Your task to perform on an android device: turn on the 12-hour format for clock Image 0: 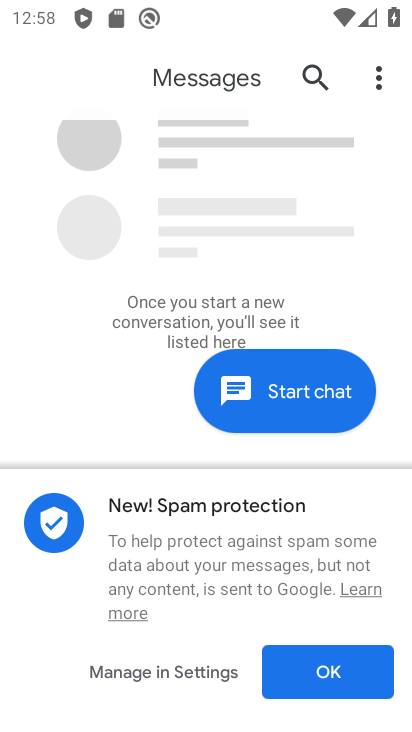
Step 0: press home button
Your task to perform on an android device: turn on the 12-hour format for clock Image 1: 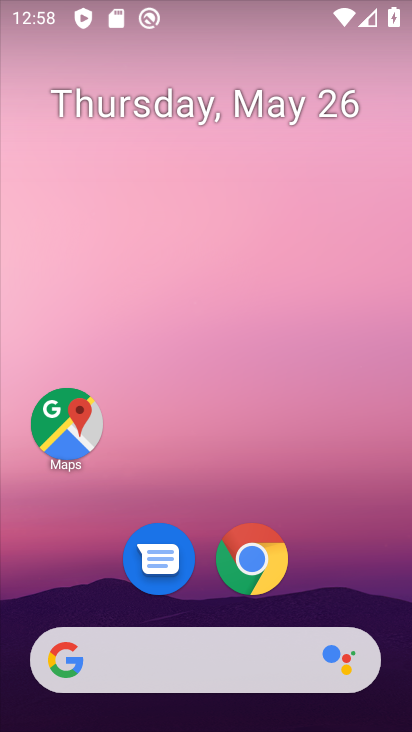
Step 1: drag from (326, 351) to (371, 174)
Your task to perform on an android device: turn on the 12-hour format for clock Image 2: 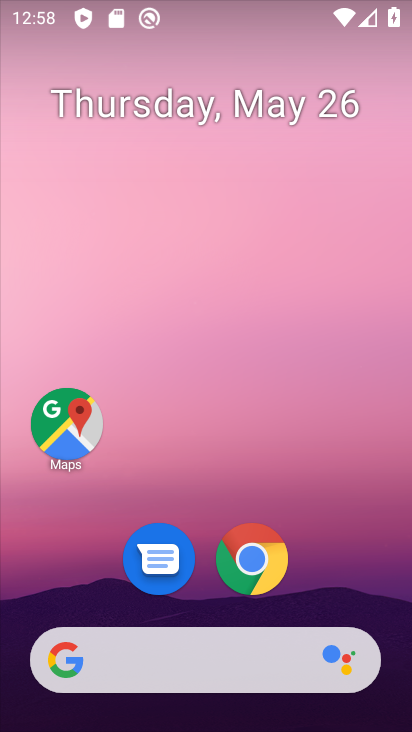
Step 2: drag from (175, 663) to (340, 220)
Your task to perform on an android device: turn on the 12-hour format for clock Image 3: 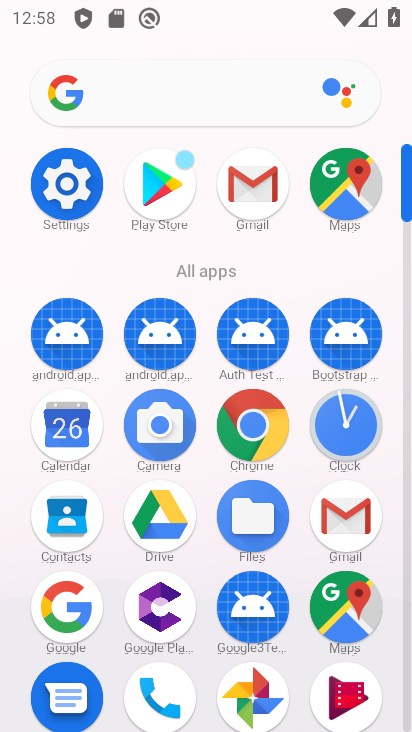
Step 3: click (340, 439)
Your task to perform on an android device: turn on the 12-hour format for clock Image 4: 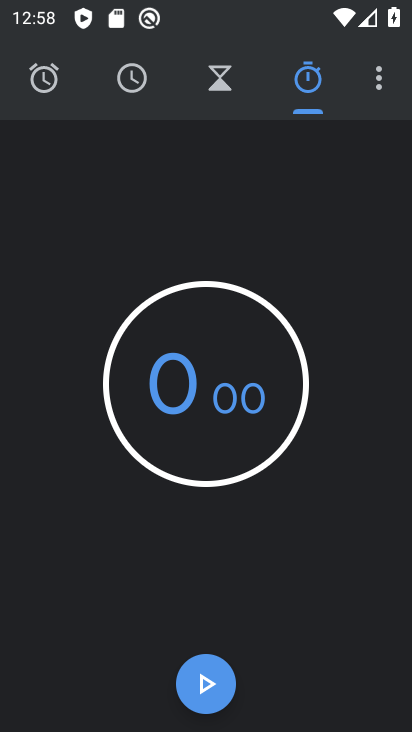
Step 4: click (381, 85)
Your task to perform on an android device: turn on the 12-hour format for clock Image 5: 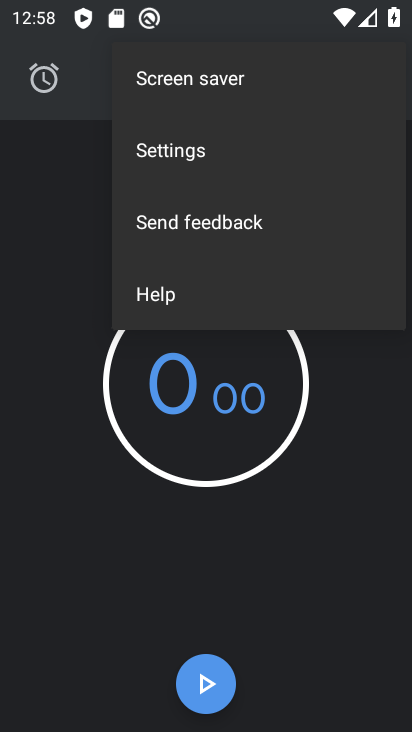
Step 5: click (197, 152)
Your task to perform on an android device: turn on the 12-hour format for clock Image 6: 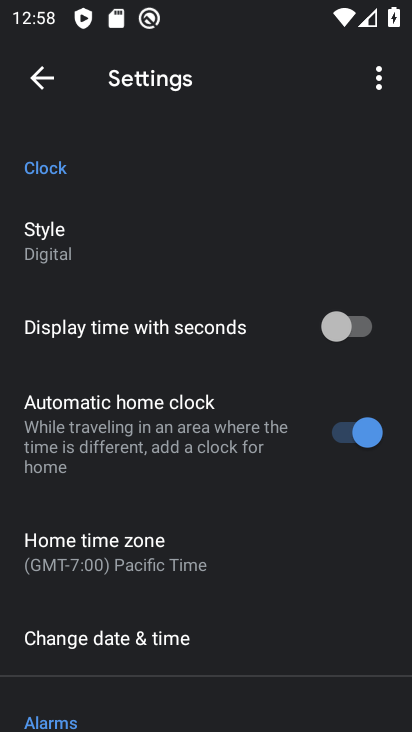
Step 6: click (177, 648)
Your task to perform on an android device: turn on the 12-hour format for clock Image 7: 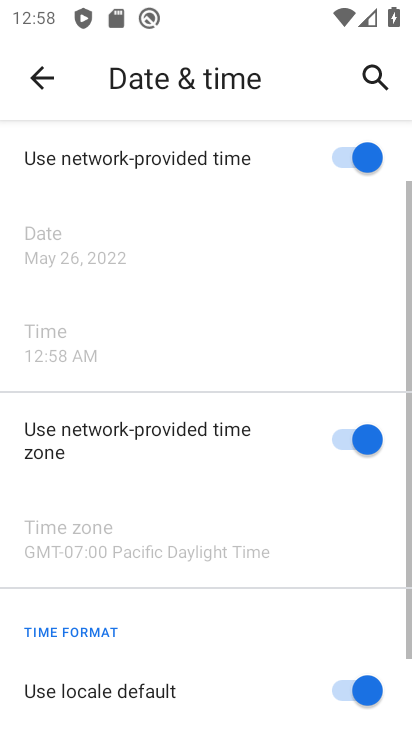
Step 7: task complete